Your task to perform on an android device: What does the iPhone 8 look like on eBay? Image 0: 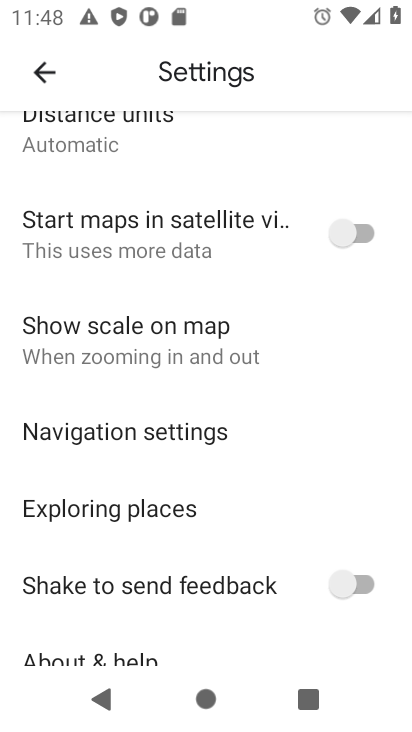
Step 0: press home button
Your task to perform on an android device: What does the iPhone 8 look like on eBay? Image 1: 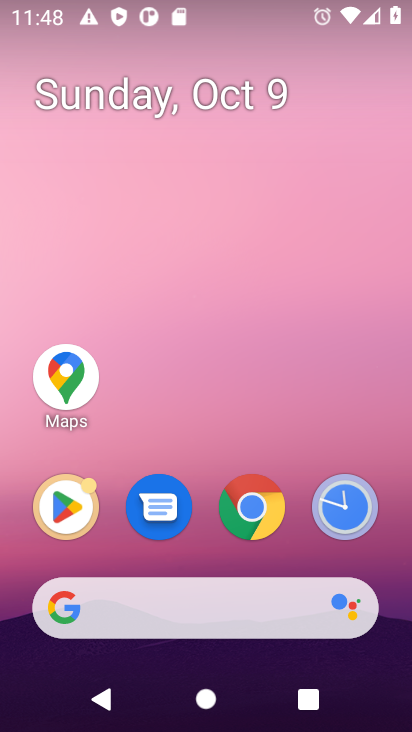
Step 1: click (268, 615)
Your task to perform on an android device: What does the iPhone 8 look like on eBay? Image 2: 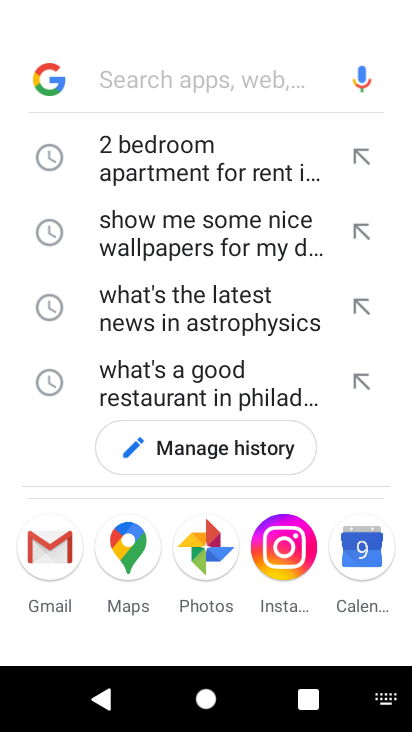
Step 2: type "What does the iPhone 8 look like on eBay?"
Your task to perform on an android device: What does the iPhone 8 look like on eBay? Image 3: 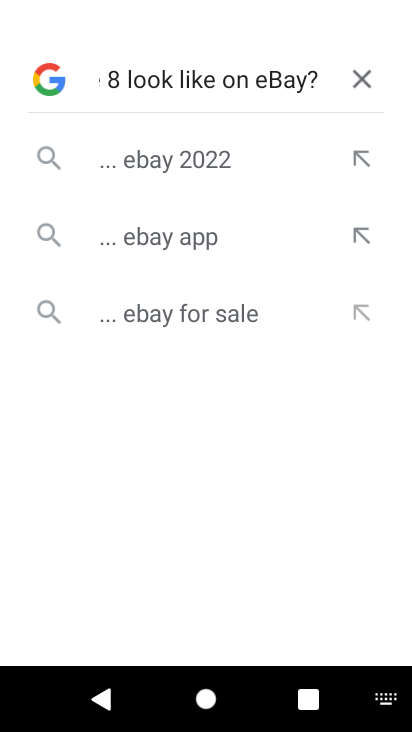
Step 3: press enter
Your task to perform on an android device: What does the iPhone 8 look like on eBay? Image 4: 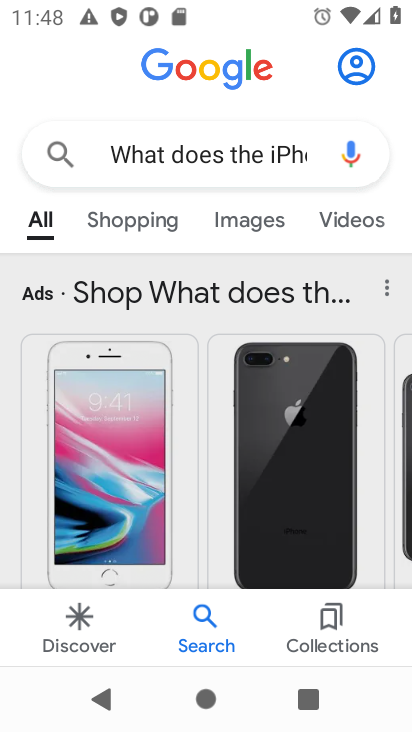
Step 4: drag from (282, 533) to (297, 219)
Your task to perform on an android device: What does the iPhone 8 look like on eBay? Image 5: 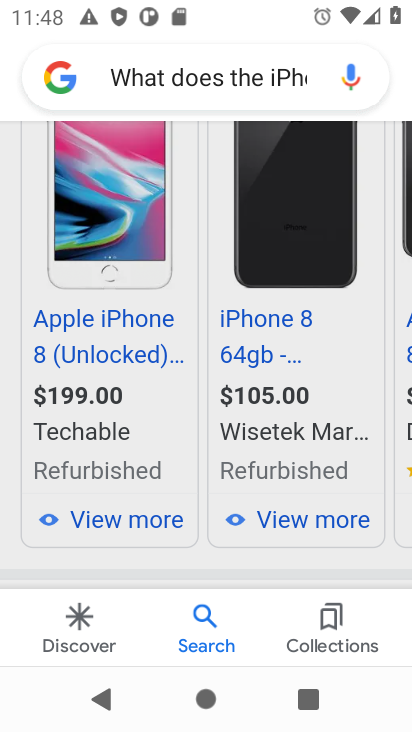
Step 5: drag from (249, 539) to (242, 330)
Your task to perform on an android device: What does the iPhone 8 look like on eBay? Image 6: 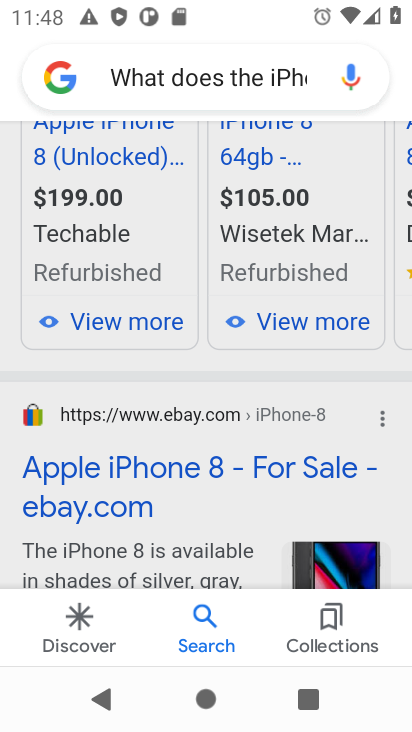
Step 6: click (242, 467)
Your task to perform on an android device: What does the iPhone 8 look like on eBay? Image 7: 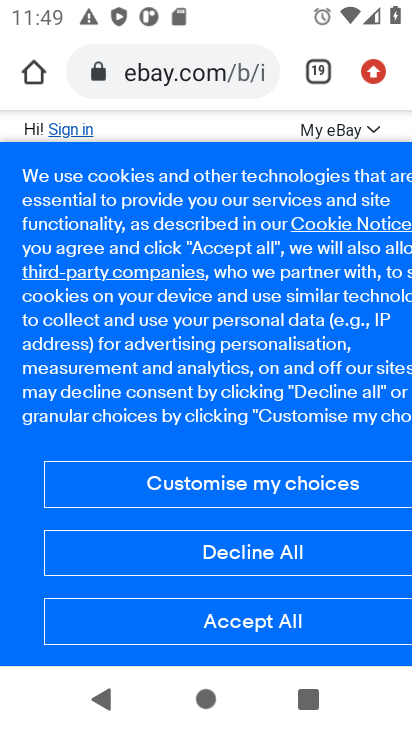
Step 7: click (274, 629)
Your task to perform on an android device: What does the iPhone 8 look like on eBay? Image 8: 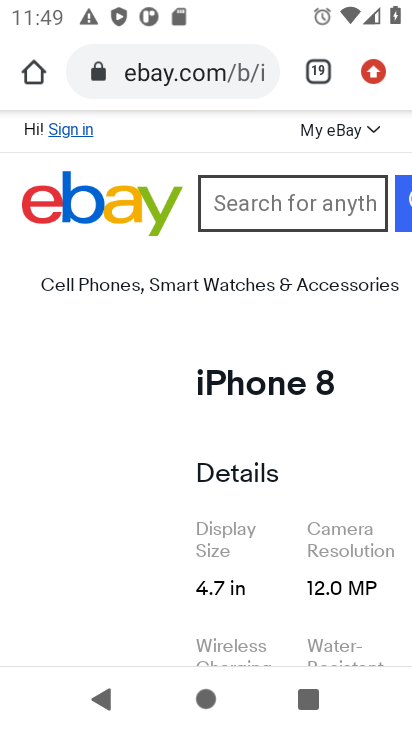
Step 8: task complete